Your task to perform on an android device: change the upload size in google photos Image 0: 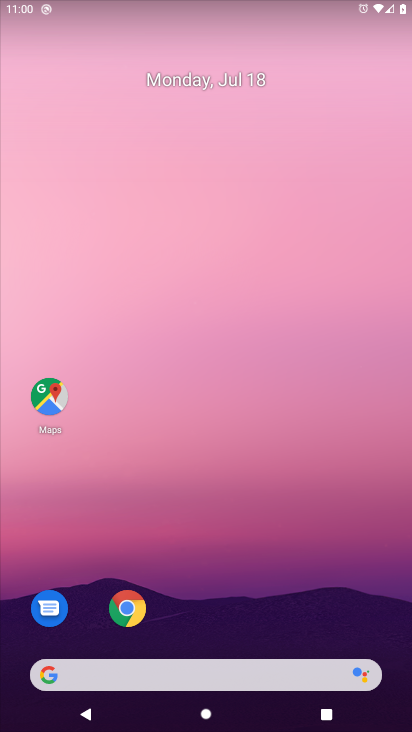
Step 0: drag from (11, 705) to (191, 216)
Your task to perform on an android device: change the upload size in google photos Image 1: 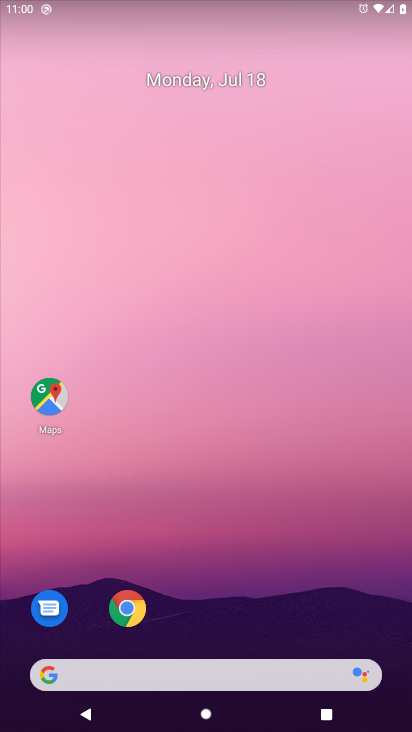
Step 1: drag from (64, 558) to (230, 24)
Your task to perform on an android device: change the upload size in google photos Image 2: 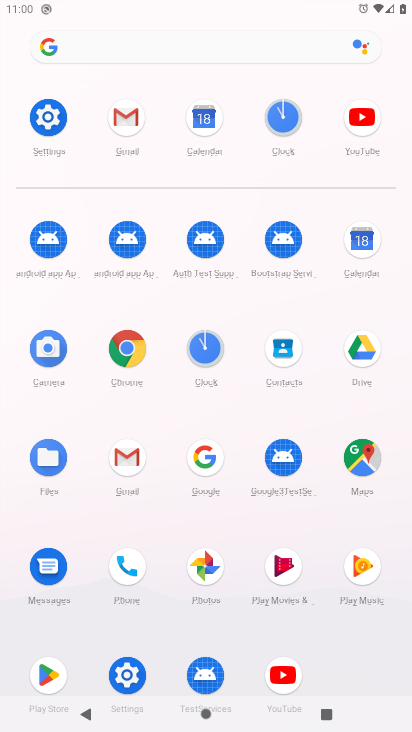
Step 2: click (207, 568)
Your task to perform on an android device: change the upload size in google photos Image 3: 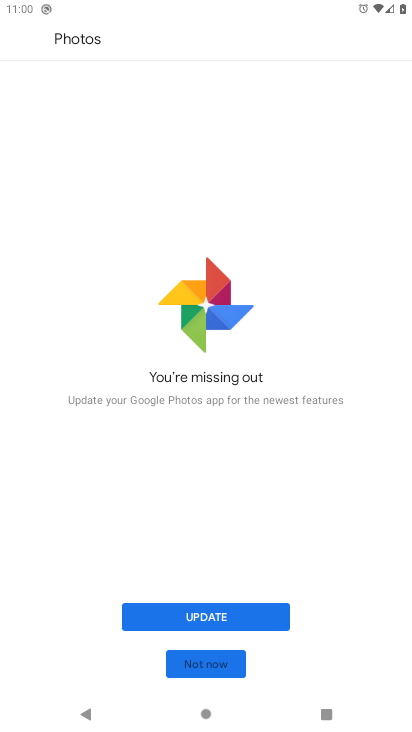
Step 3: click (226, 667)
Your task to perform on an android device: change the upload size in google photos Image 4: 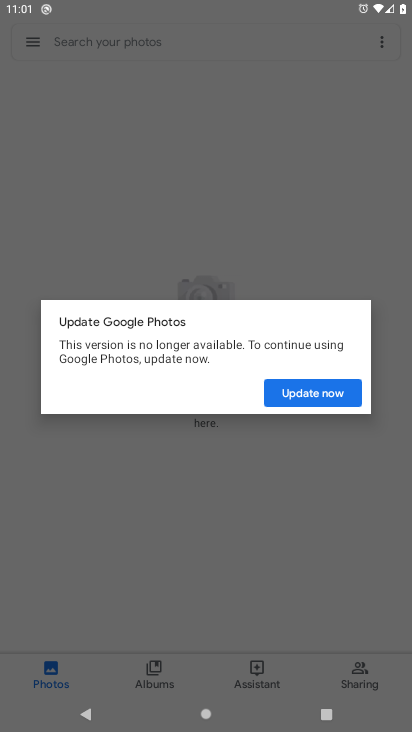
Step 4: click (306, 398)
Your task to perform on an android device: change the upload size in google photos Image 5: 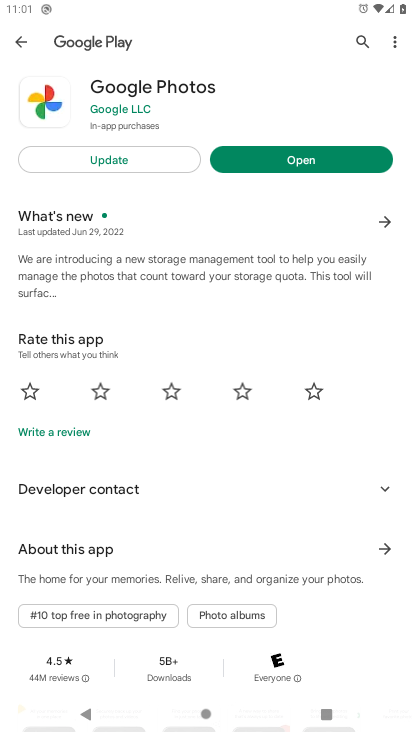
Step 5: click (279, 164)
Your task to perform on an android device: change the upload size in google photos Image 6: 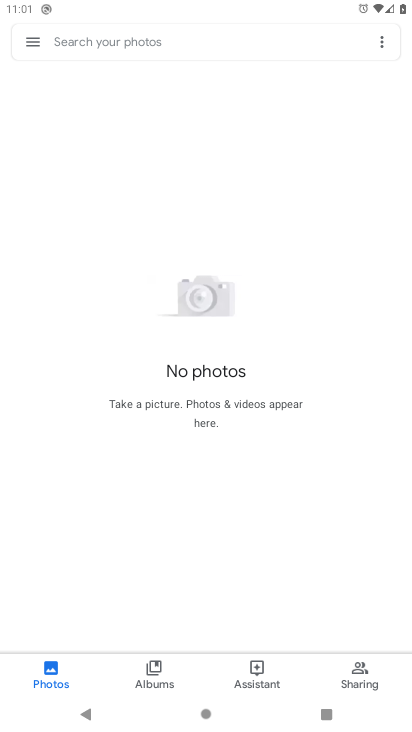
Step 6: click (23, 43)
Your task to perform on an android device: change the upload size in google photos Image 7: 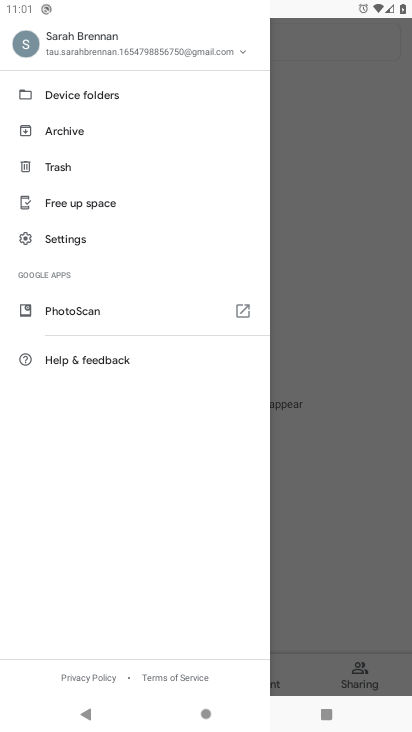
Step 7: click (76, 242)
Your task to perform on an android device: change the upload size in google photos Image 8: 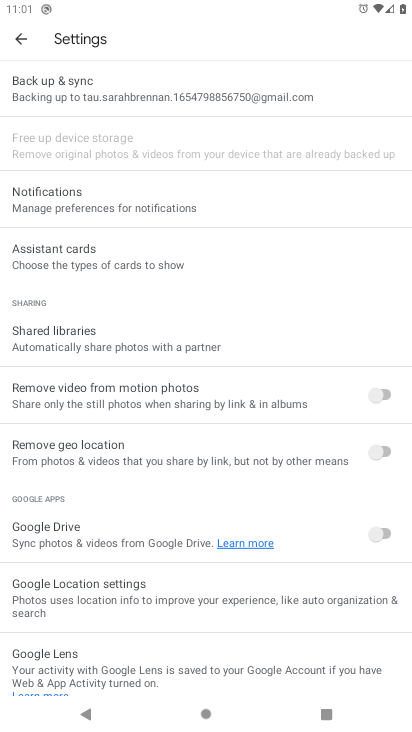
Step 8: drag from (210, 485) to (254, 169)
Your task to perform on an android device: change the upload size in google photos Image 9: 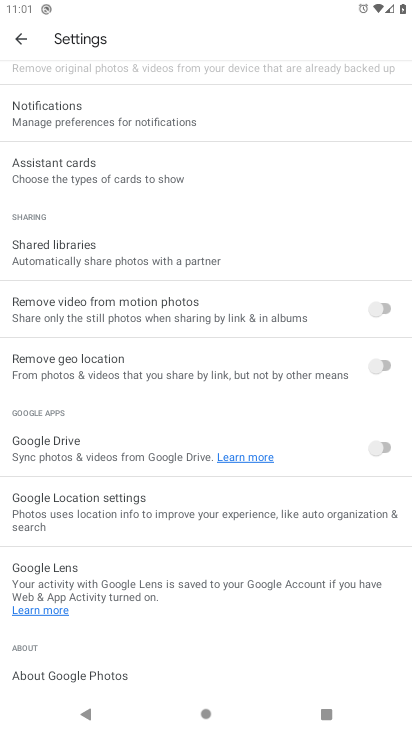
Step 9: drag from (212, 636) to (240, 268)
Your task to perform on an android device: change the upload size in google photos Image 10: 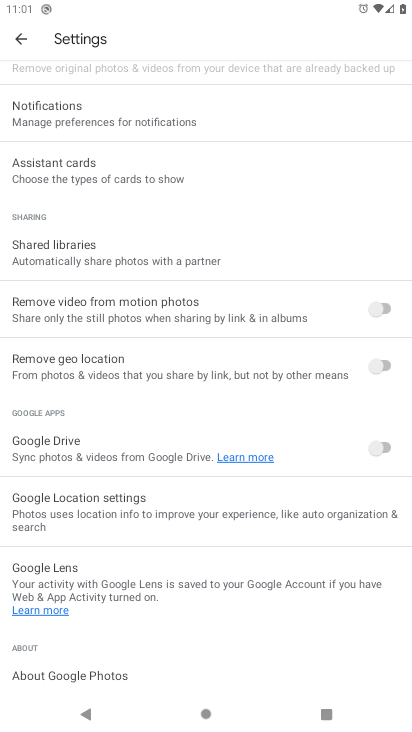
Step 10: drag from (262, 129) to (230, 710)
Your task to perform on an android device: change the upload size in google photos Image 11: 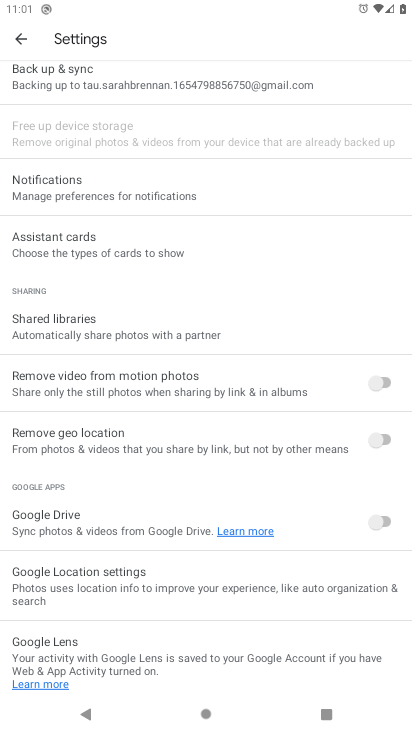
Step 11: click (133, 92)
Your task to perform on an android device: change the upload size in google photos Image 12: 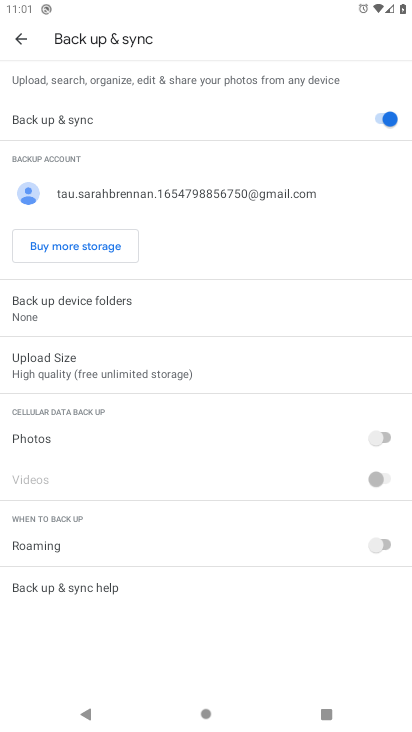
Step 12: click (107, 369)
Your task to perform on an android device: change the upload size in google photos Image 13: 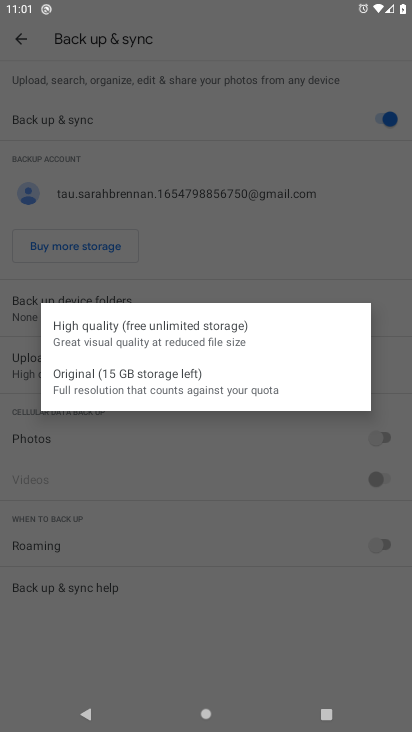
Step 13: click (114, 370)
Your task to perform on an android device: change the upload size in google photos Image 14: 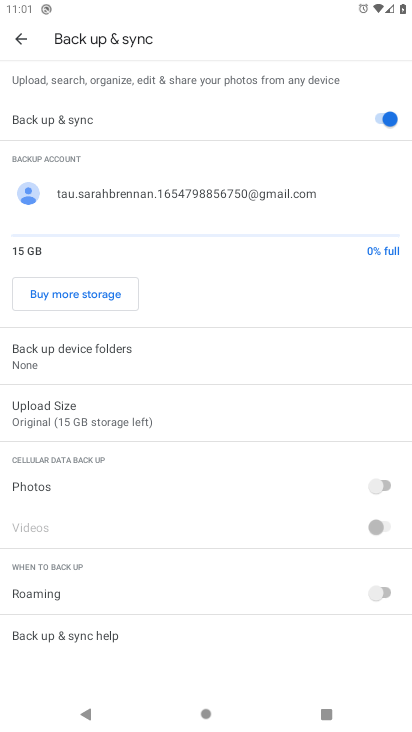
Step 14: task complete